Your task to perform on an android device: open a bookmark in the chrome app Image 0: 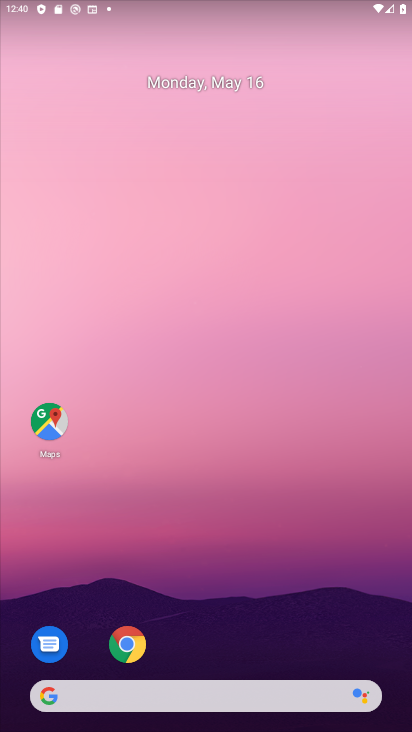
Step 0: click (147, 647)
Your task to perform on an android device: open a bookmark in the chrome app Image 1: 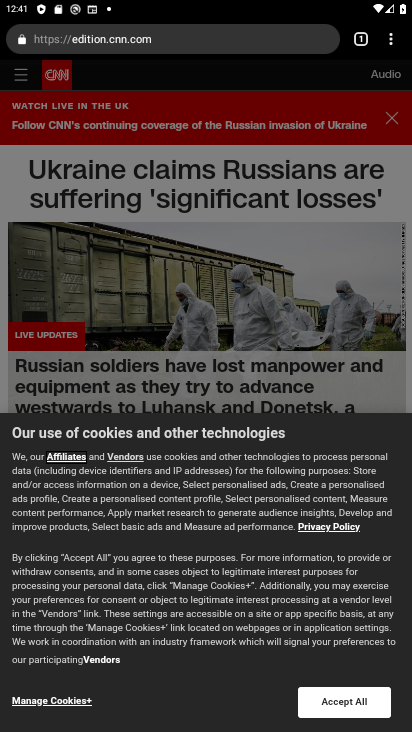
Step 1: task complete